Your task to perform on an android device: read, delete, or share a saved page in the chrome app Image 0: 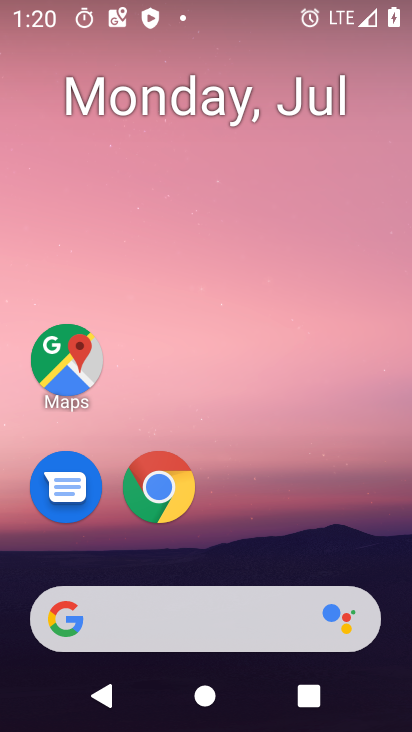
Step 0: press home button
Your task to perform on an android device: read, delete, or share a saved page in the chrome app Image 1: 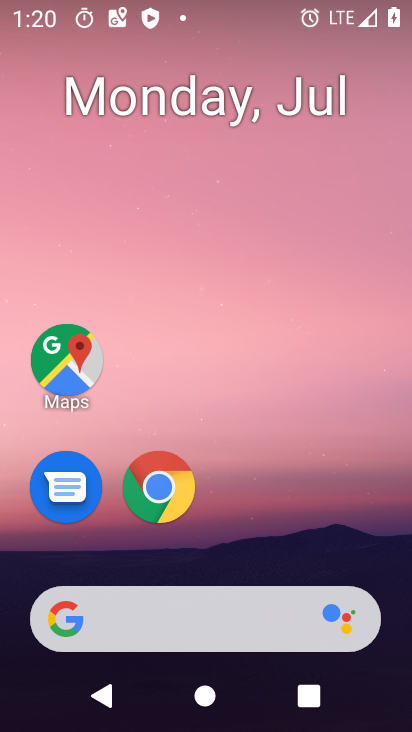
Step 1: drag from (285, 544) to (354, 84)
Your task to perform on an android device: read, delete, or share a saved page in the chrome app Image 2: 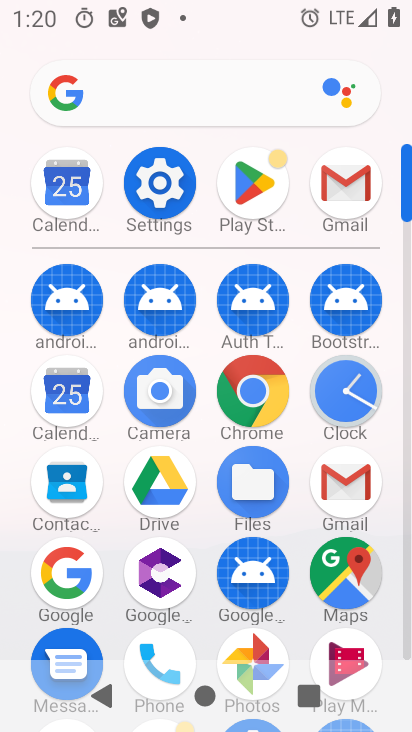
Step 2: click (258, 369)
Your task to perform on an android device: read, delete, or share a saved page in the chrome app Image 3: 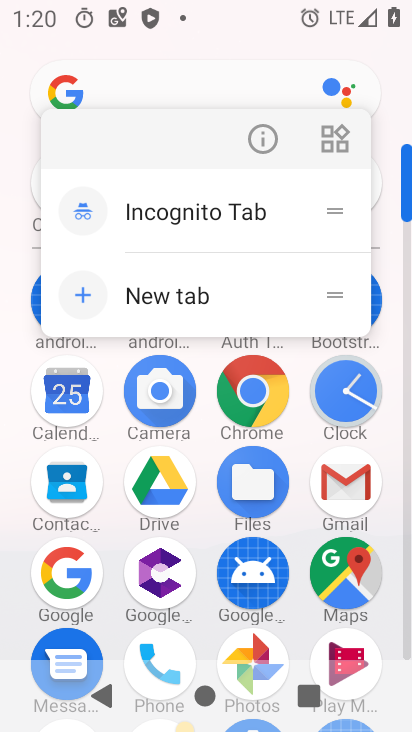
Step 3: click (239, 389)
Your task to perform on an android device: read, delete, or share a saved page in the chrome app Image 4: 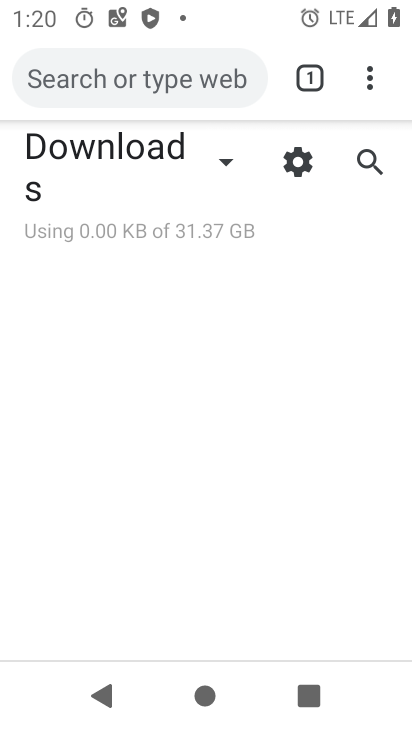
Step 4: task complete